Your task to perform on an android device: Go to internet settings Image 0: 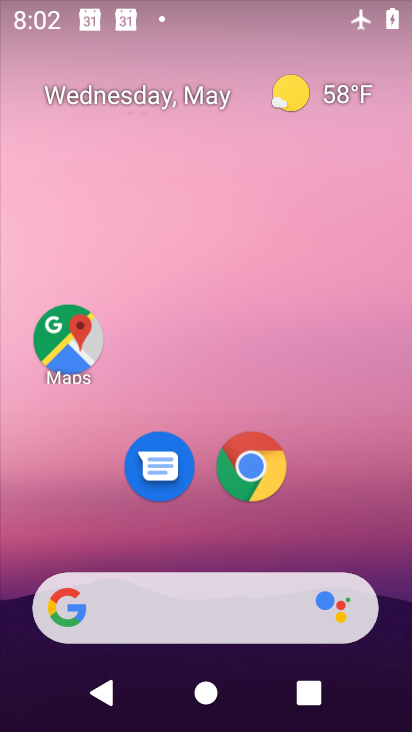
Step 0: press home button
Your task to perform on an android device: Go to internet settings Image 1: 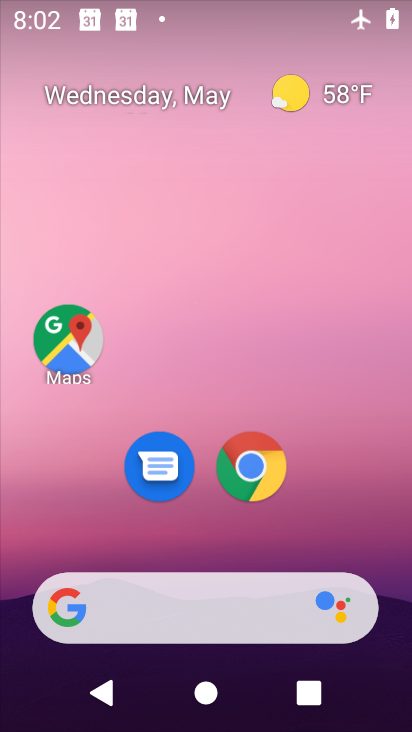
Step 1: drag from (212, 540) to (226, 49)
Your task to perform on an android device: Go to internet settings Image 2: 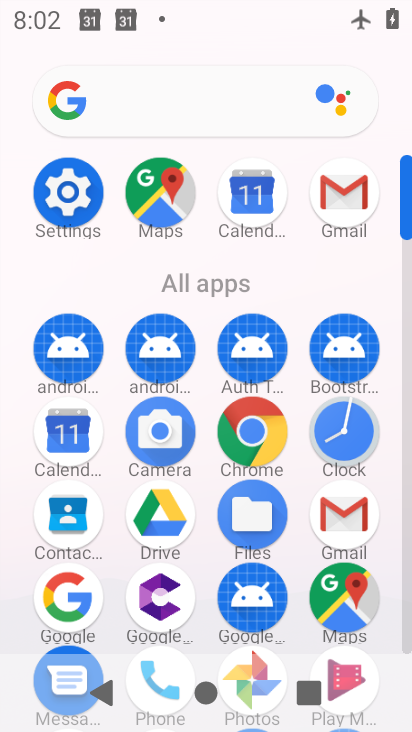
Step 2: click (65, 190)
Your task to perform on an android device: Go to internet settings Image 3: 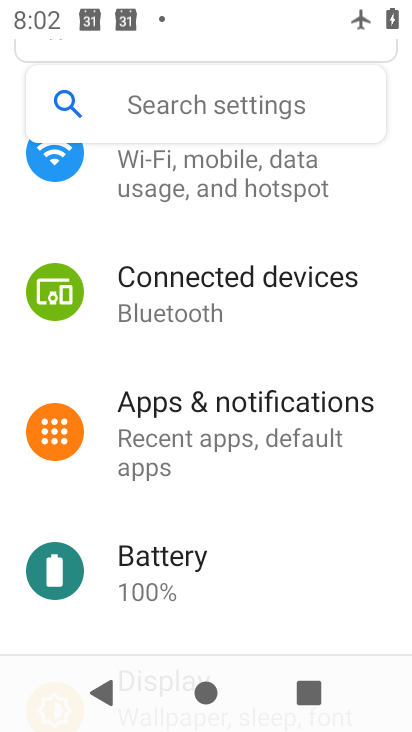
Step 3: click (200, 178)
Your task to perform on an android device: Go to internet settings Image 4: 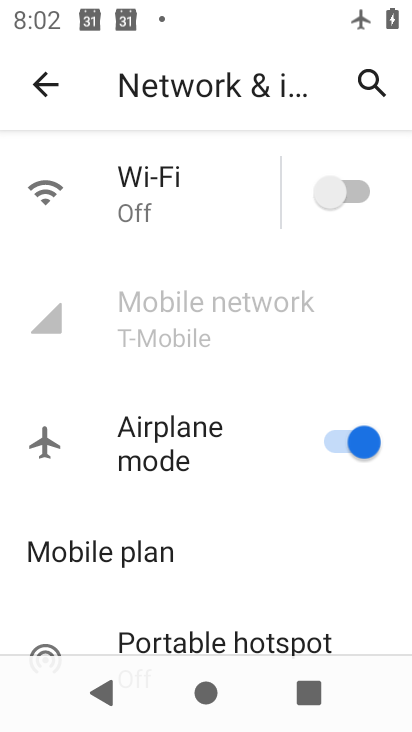
Step 4: drag from (229, 507) to (257, 92)
Your task to perform on an android device: Go to internet settings Image 5: 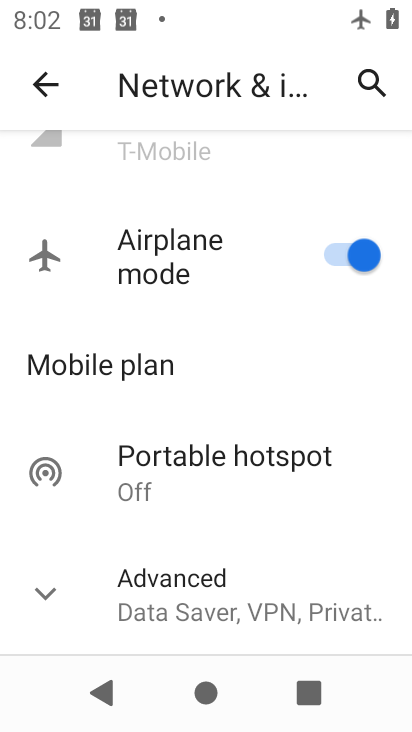
Step 5: drag from (224, 570) to (239, 260)
Your task to perform on an android device: Go to internet settings Image 6: 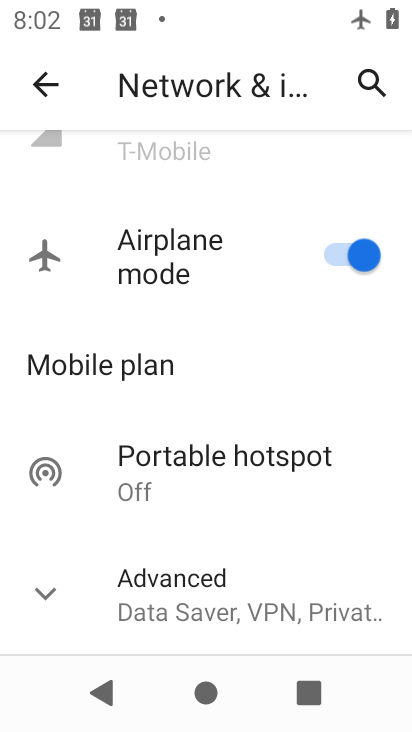
Step 6: click (48, 586)
Your task to perform on an android device: Go to internet settings Image 7: 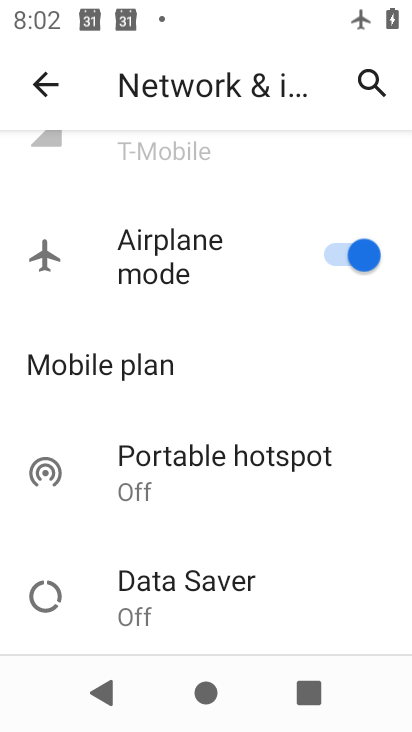
Step 7: task complete